Your task to perform on an android device: Open settings Image 0: 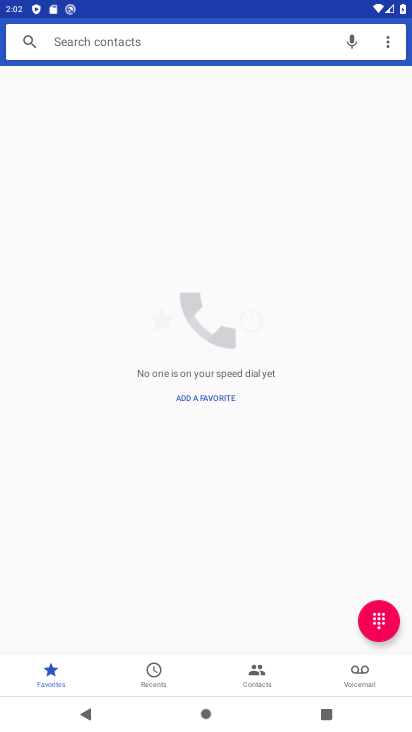
Step 0: press back button
Your task to perform on an android device: Open settings Image 1: 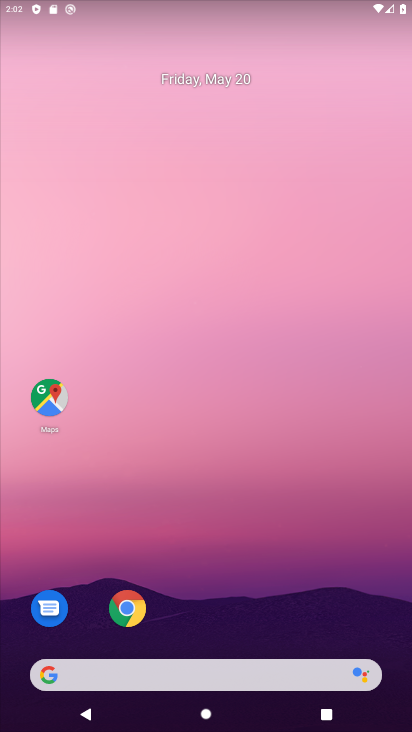
Step 1: drag from (206, 600) to (332, 71)
Your task to perform on an android device: Open settings Image 2: 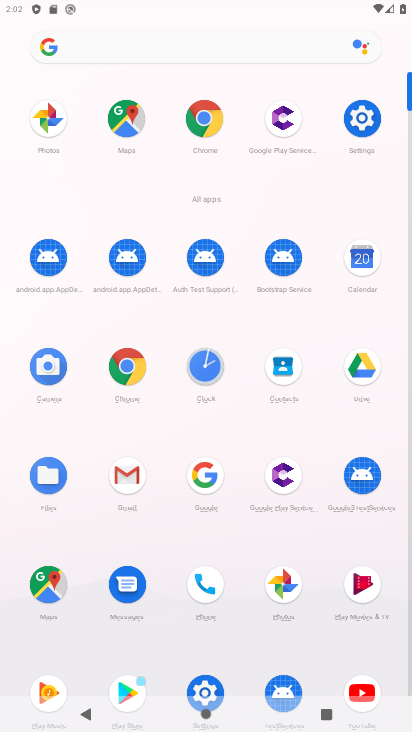
Step 2: click (358, 116)
Your task to perform on an android device: Open settings Image 3: 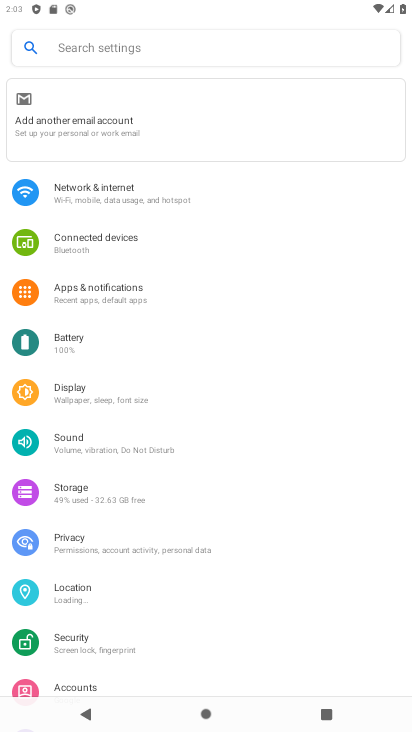
Step 3: task complete